Your task to perform on an android device: check the backup settings in the google photos Image 0: 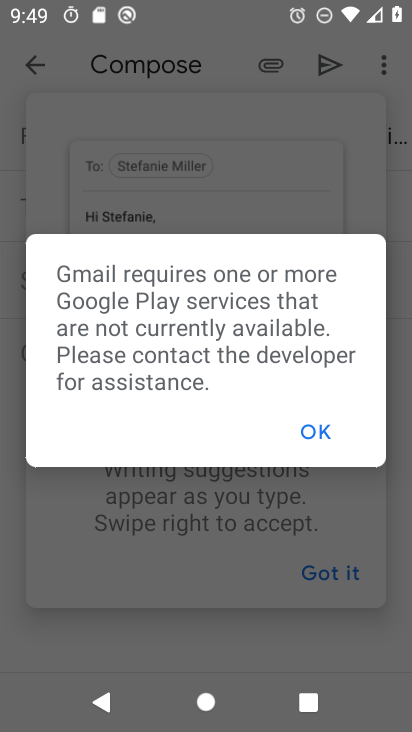
Step 0: press home button
Your task to perform on an android device: check the backup settings in the google photos Image 1: 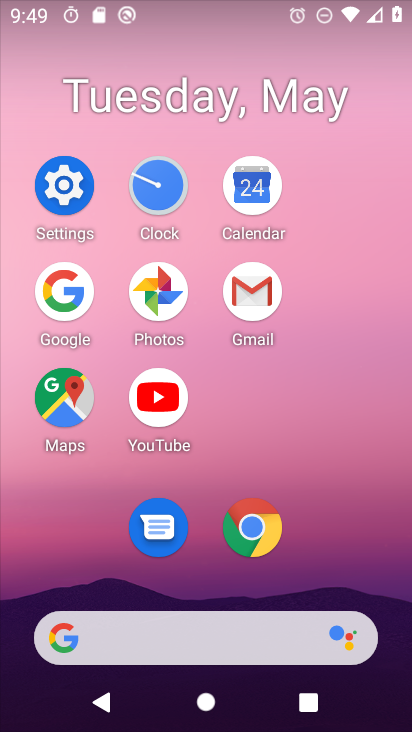
Step 1: click (161, 297)
Your task to perform on an android device: check the backup settings in the google photos Image 2: 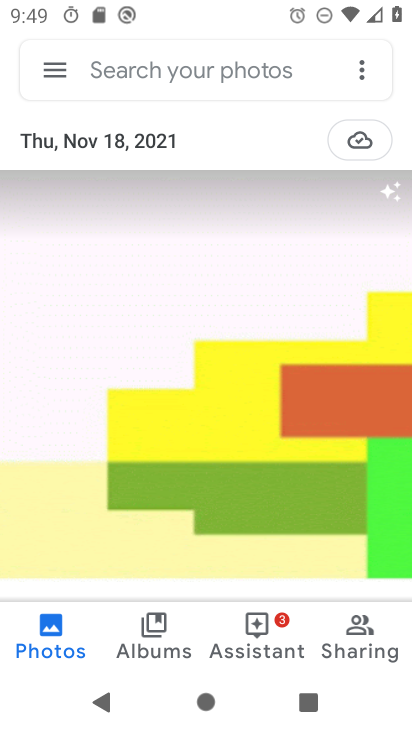
Step 2: click (52, 82)
Your task to perform on an android device: check the backup settings in the google photos Image 3: 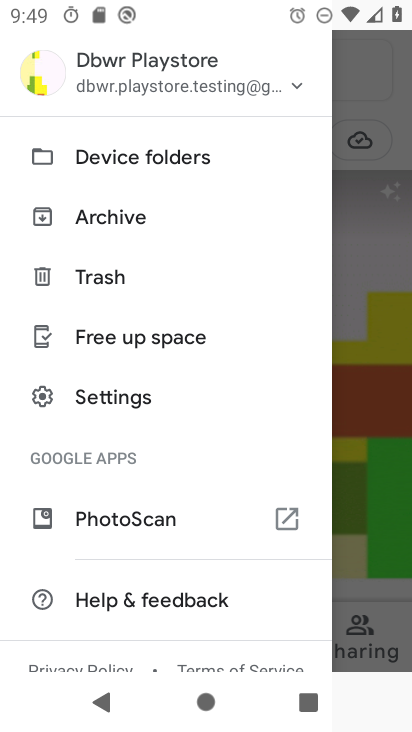
Step 3: click (111, 428)
Your task to perform on an android device: check the backup settings in the google photos Image 4: 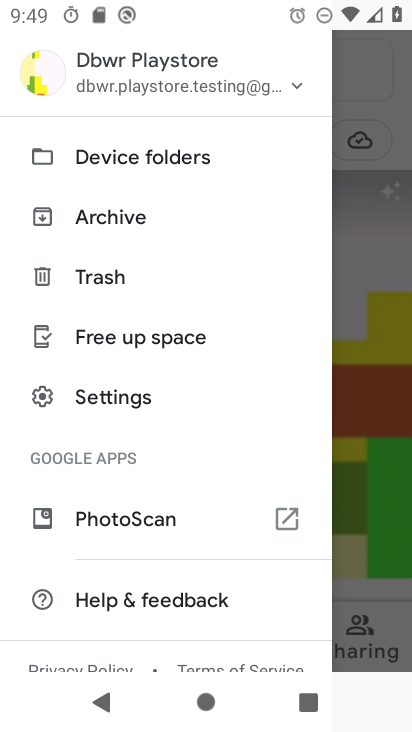
Step 4: click (130, 407)
Your task to perform on an android device: check the backup settings in the google photos Image 5: 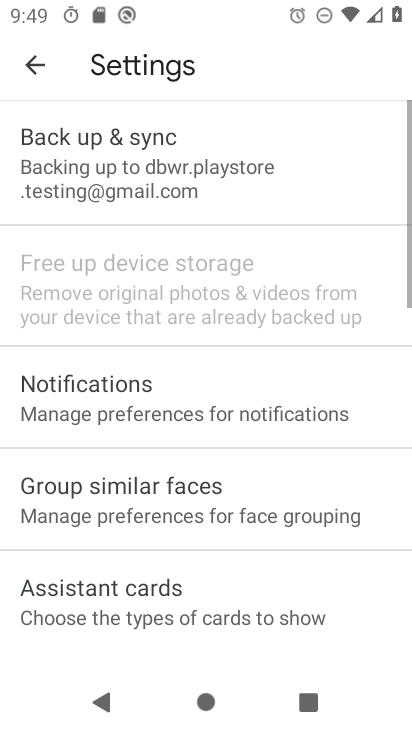
Step 5: click (166, 160)
Your task to perform on an android device: check the backup settings in the google photos Image 6: 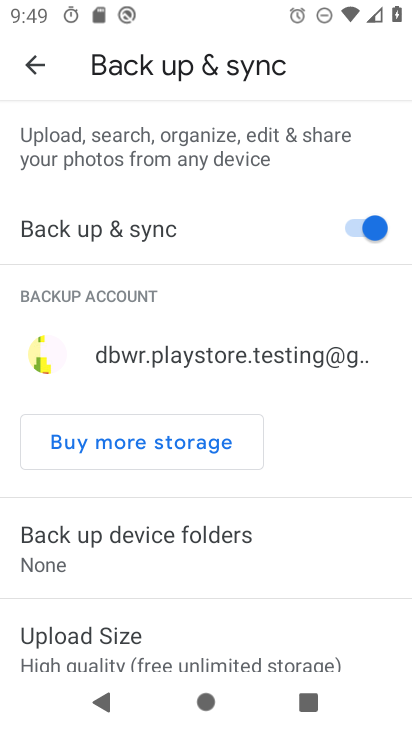
Step 6: task complete